Your task to perform on an android device: Open accessibility settings Image 0: 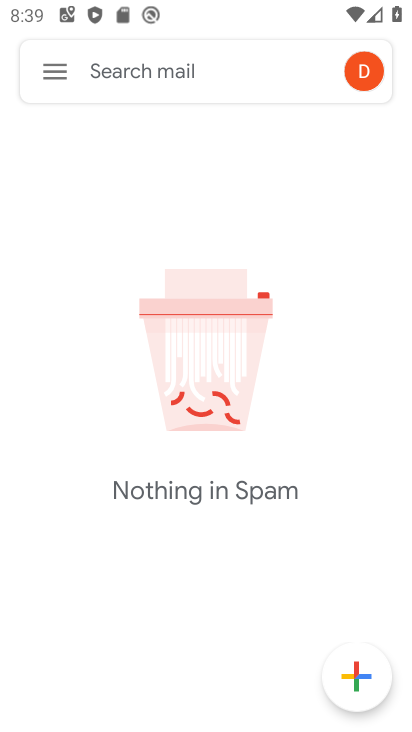
Step 0: press home button
Your task to perform on an android device: Open accessibility settings Image 1: 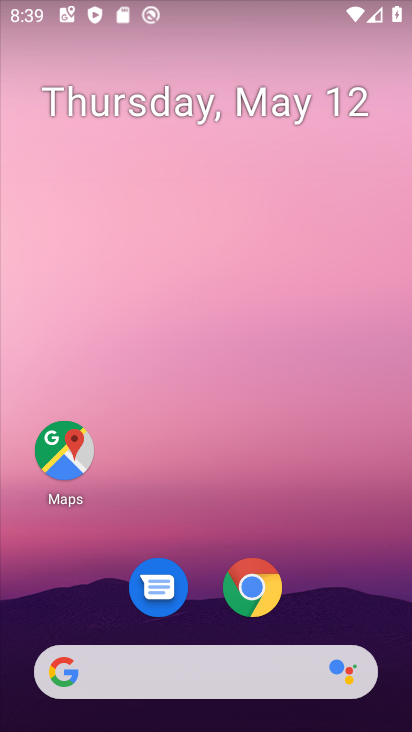
Step 1: drag from (323, 621) to (296, 176)
Your task to perform on an android device: Open accessibility settings Image 2: 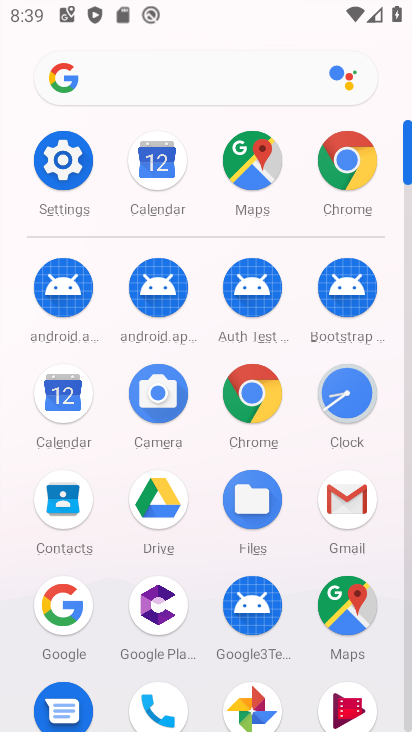
Step 2: click (69, 135)
Your task to perform on an android device: Open accessibility settings Image 3: 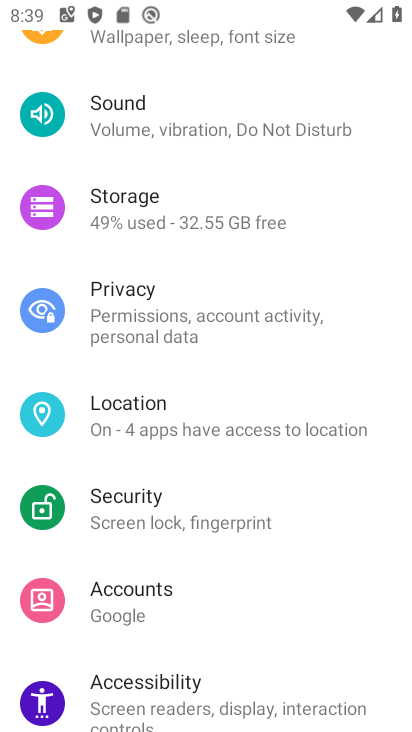
Step 3: click (242, 686)
Your task to perform on an android device: Open accessibility settings Image 4: 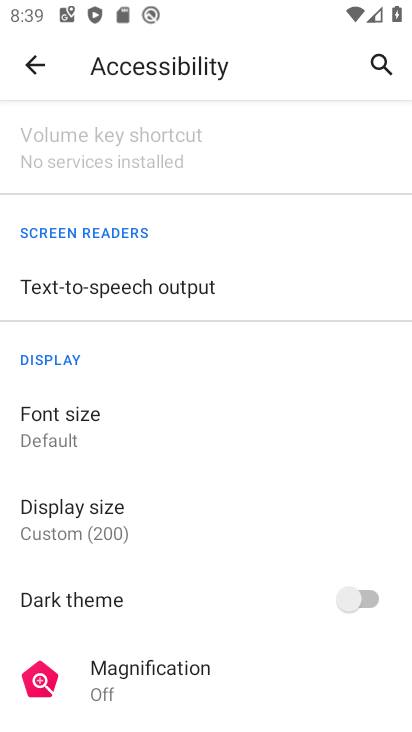
Step 4: task complete